Your task to perform on an android device: Open Maps and search for coffee Image 0: 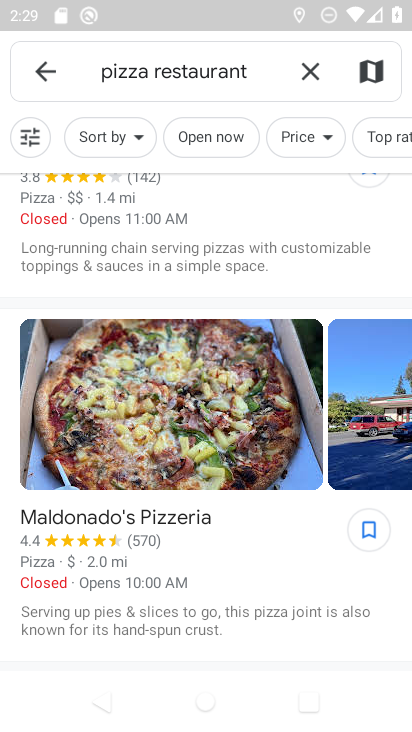
Step 0: click (320, 75)
Your task to perform on an android device: Open Maps and search for coffee Image 1: 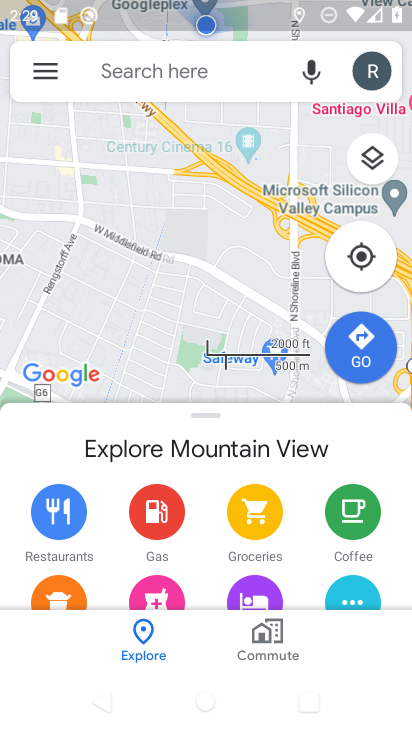
Step 1: click (197, 73)
Your task to perform on an android device: Open Maps and search for coffee Image 2: 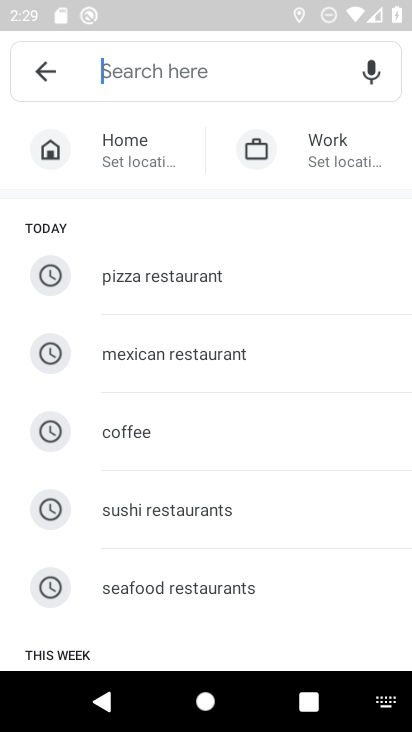
Step 2: click (143, 420)
Your task to perform on an android device: Open Maps and search for coffee Image 3: 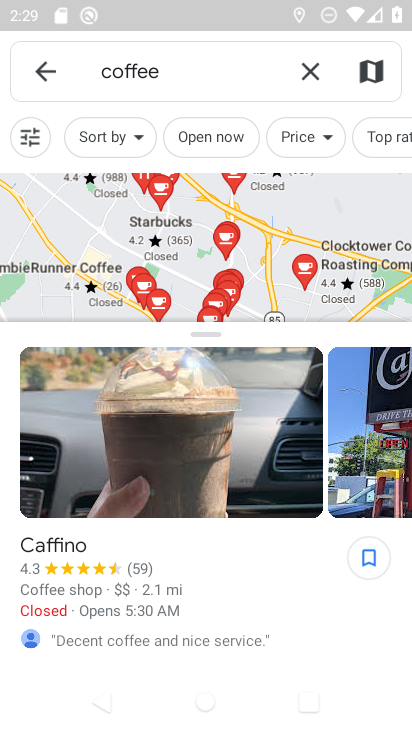
Step 3: task complete